Your task to perform on an android device: turn off sleep mode Image 0: 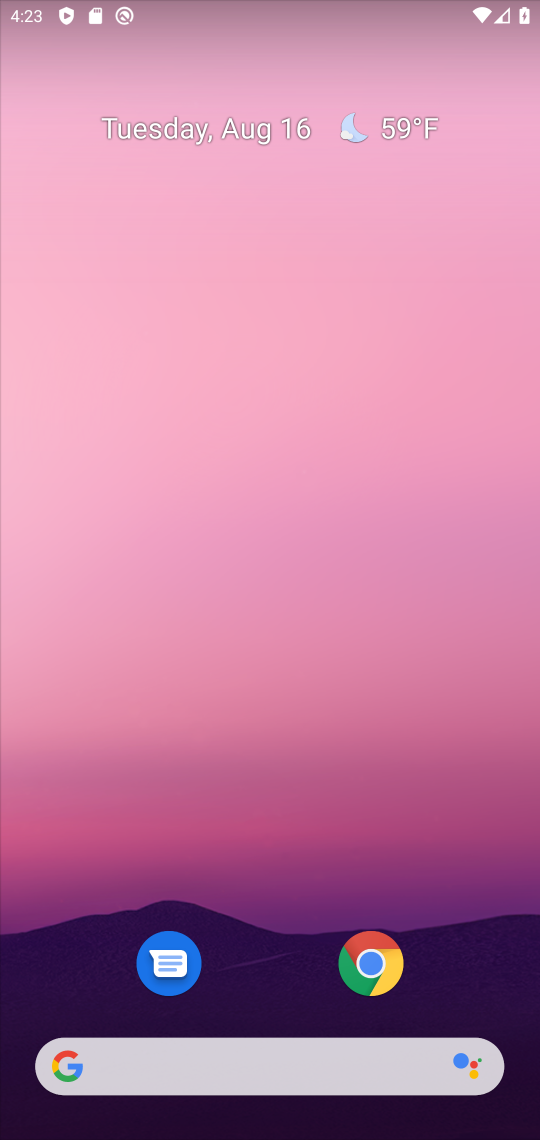
Step 0: press home button
Your task to perform on an android device: turn off sleep mode Image 1: 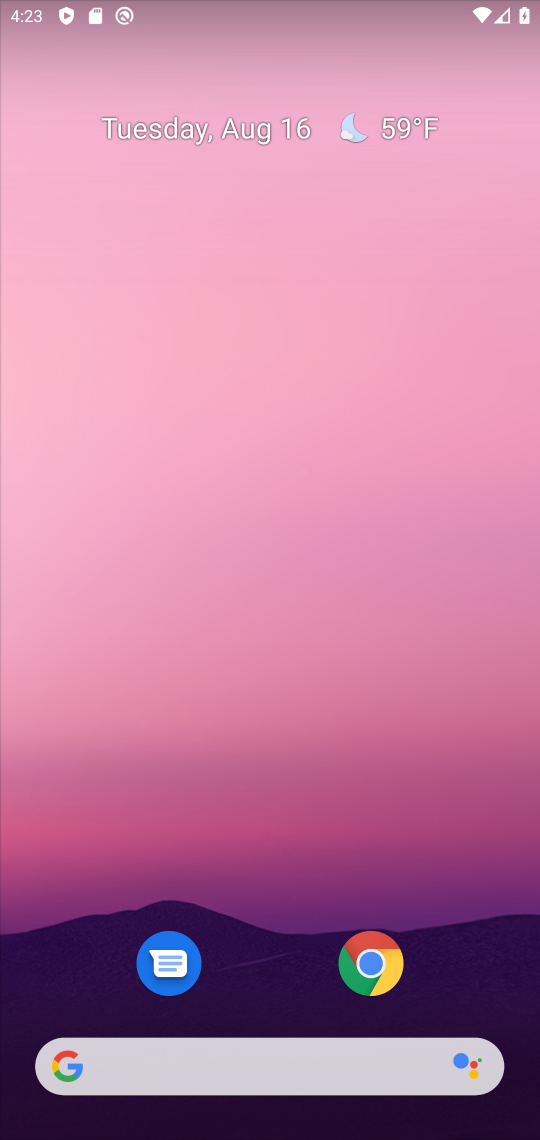
Step 1: drag from (241, 947) to (258, 180)
Your task to perform on an android device: turn off sleep mode Image 2: 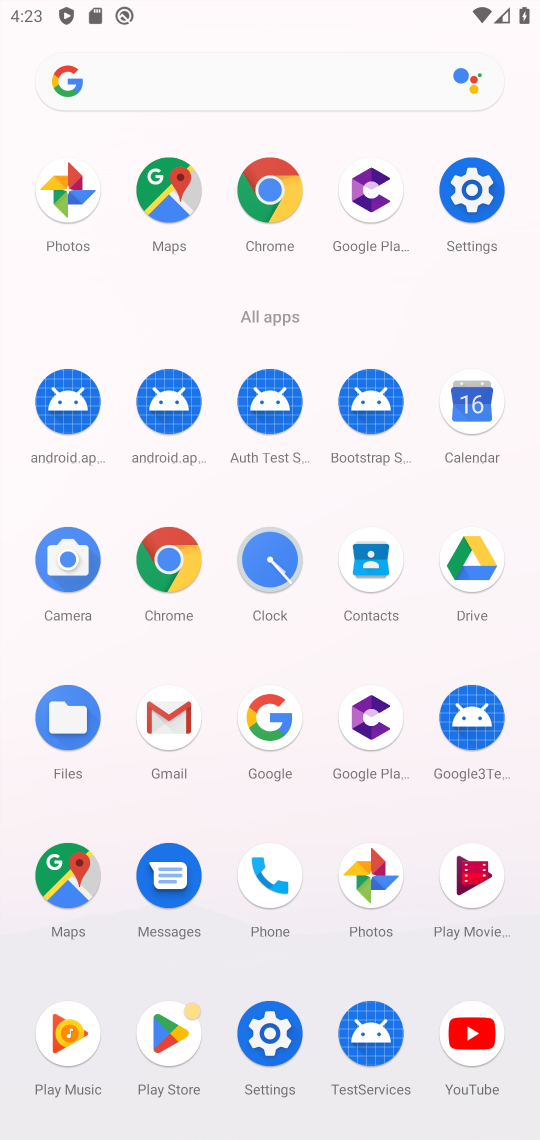
Step 2: click (473, 192)
Your task to perform on an android device: turn off sleep mode Image 3: 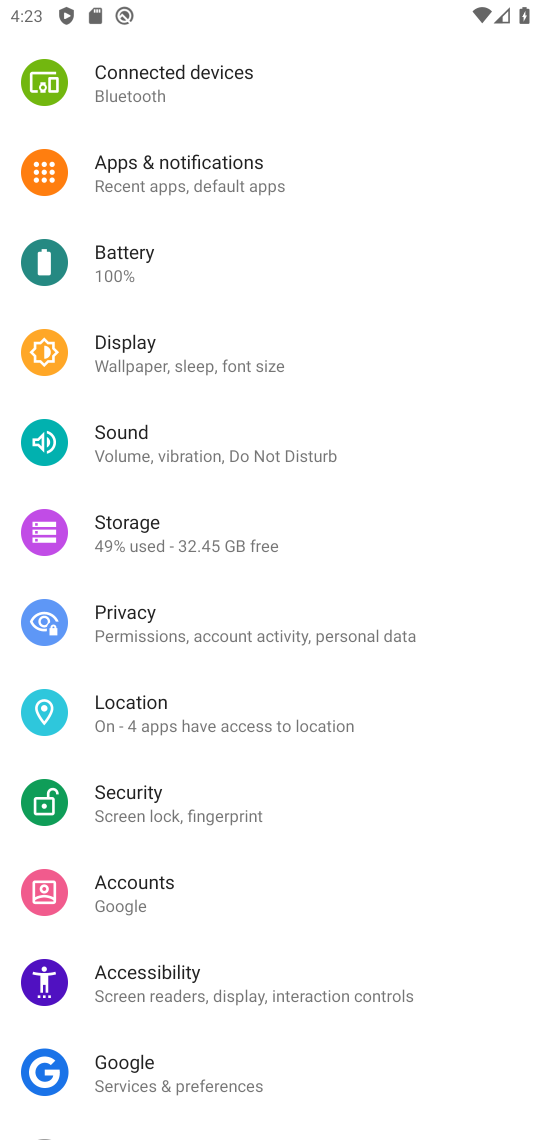
Step 3: click (153, 355)
Your task to perform on an android device: turn off sleep mode Image 4: 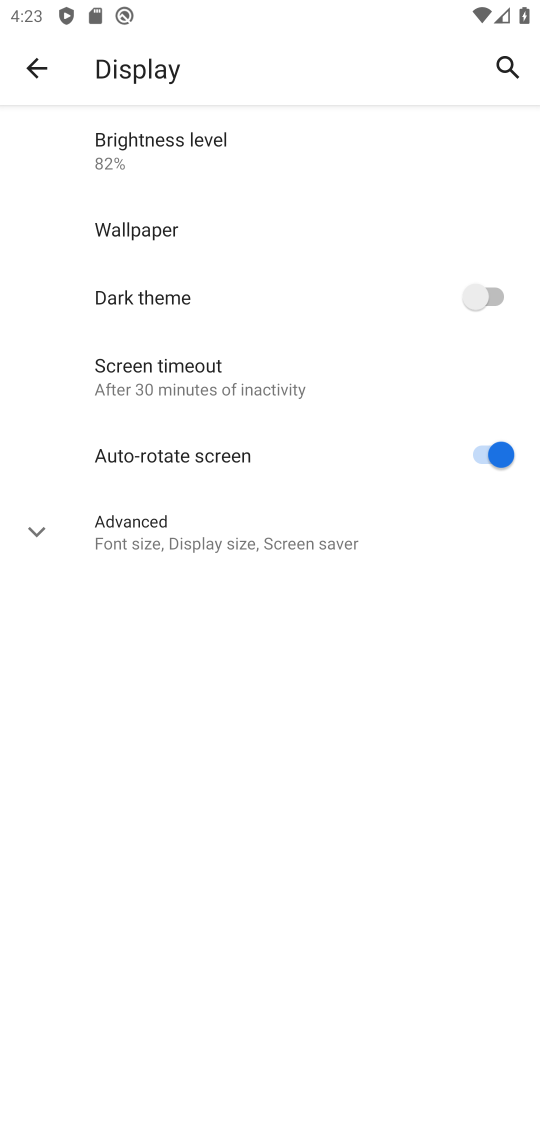
Step 4: click (27, 534)
Your task to perform on an android device: turn off sleep mode Image 5: 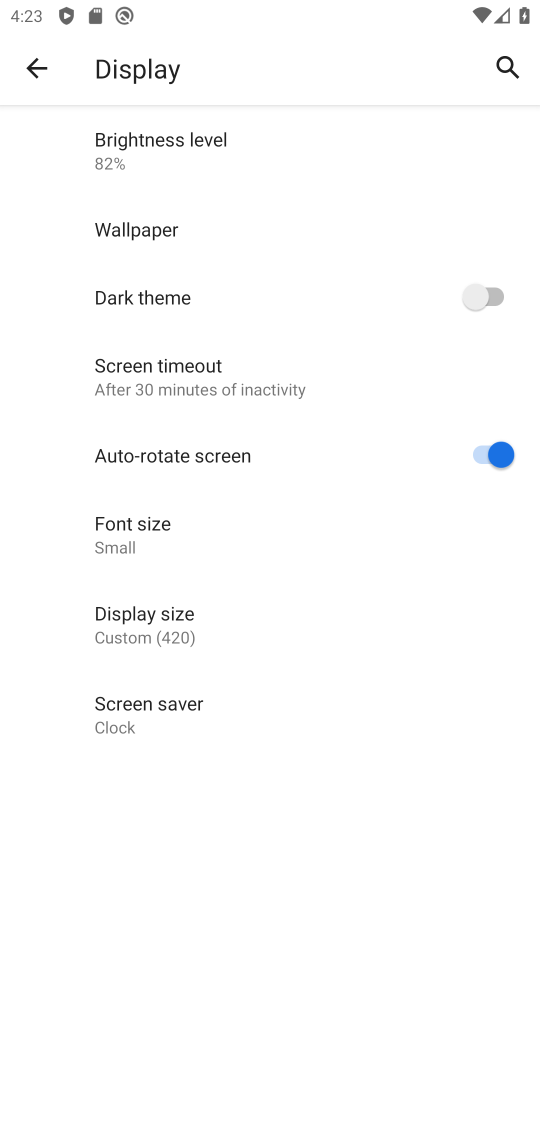
Step 5: task complete